Your task to perform on an android device: turn notification dots on Image 0: 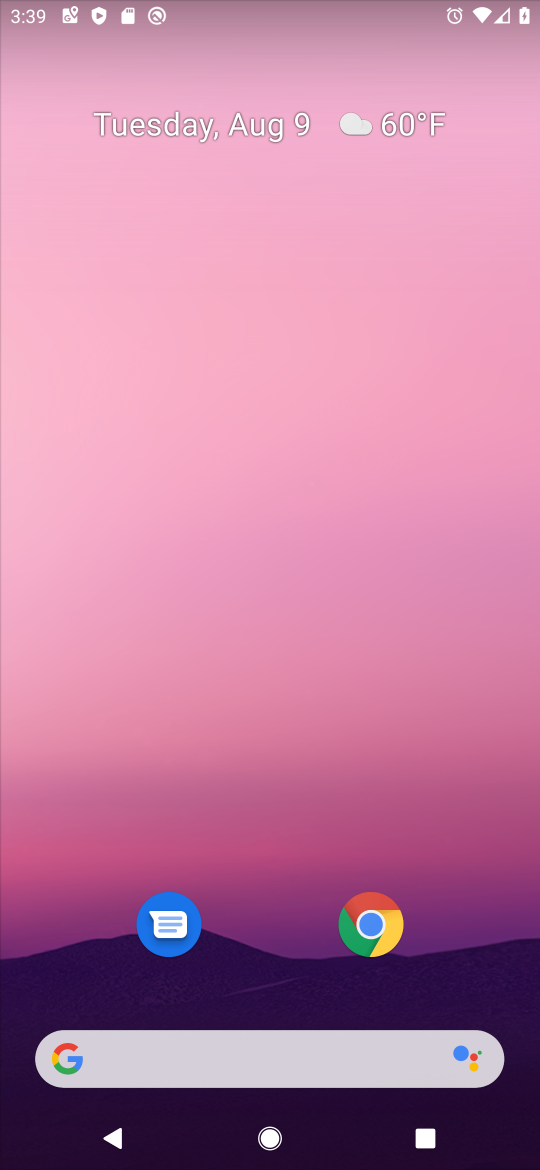
Step 0: drag from (272, 885) to (381, 0)
Your task to perform on an android device: turn notification dots on Image 1: 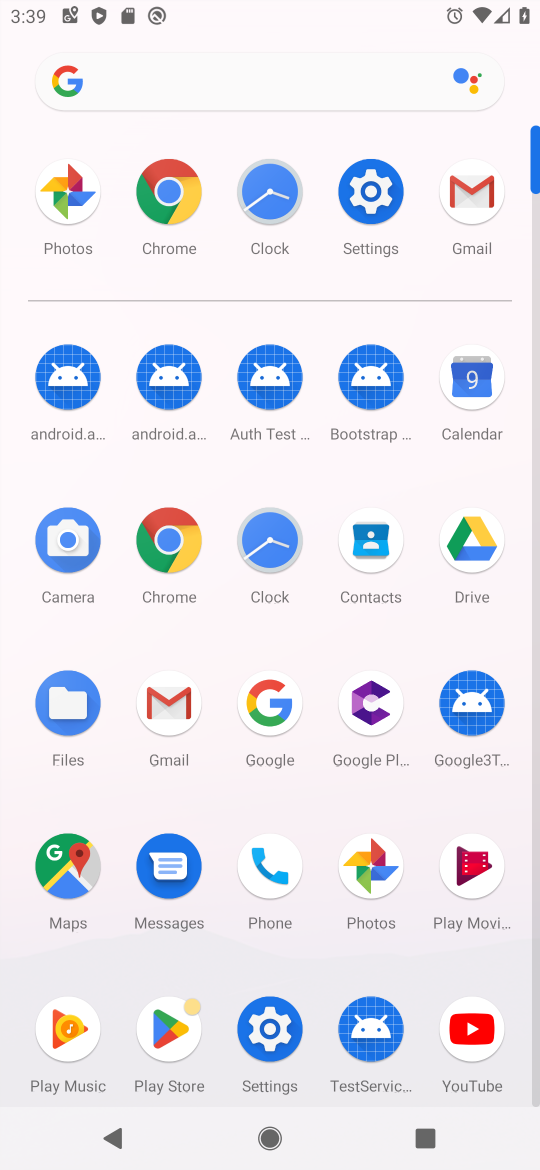
Step 1: click (378, 191)
Your task to perform on an android device: turn notification dots on Image 2: 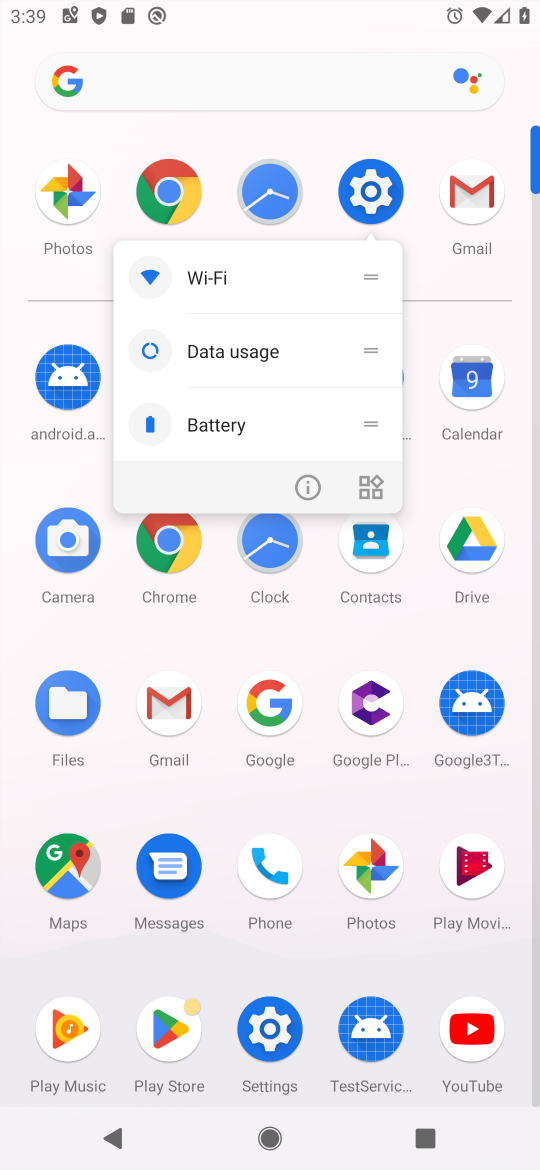
Step 2: click (371, 193)
Your task to perform on an android device: turn notification dots on Image 3: 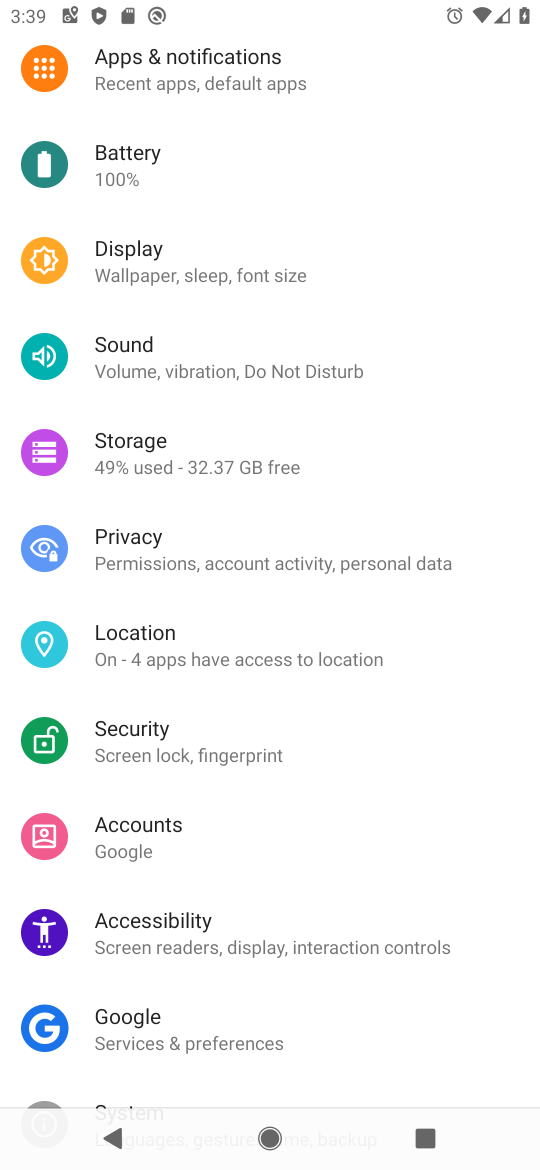
Step 3: click (252, 78)
Your task to perform on an android device: turn notification dots on Image 4: 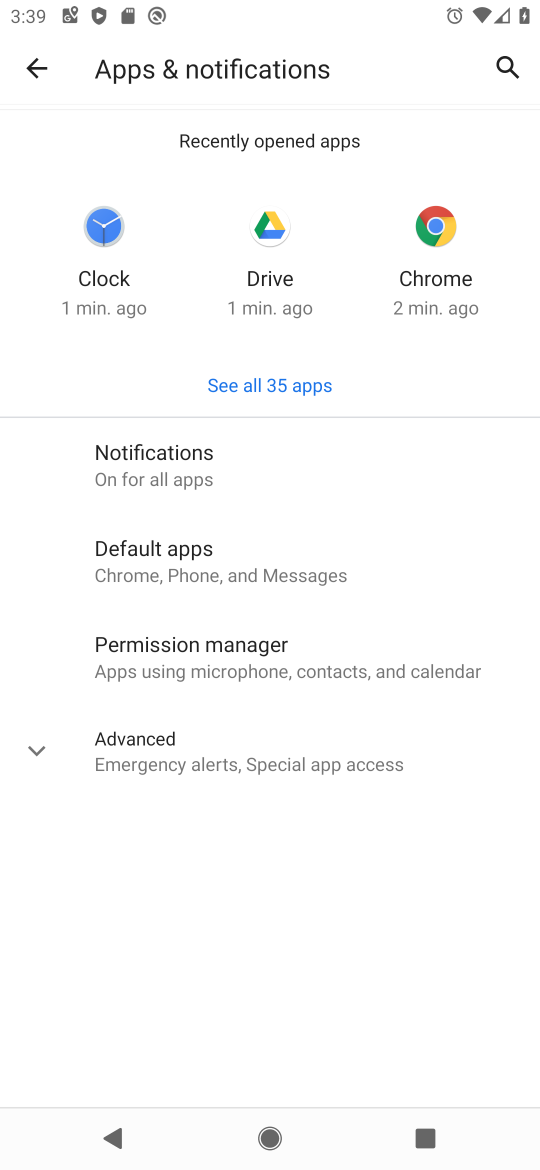
Step 4: click (32, 744)
Your task to perform on an android device: turn notification dots on Image 5: 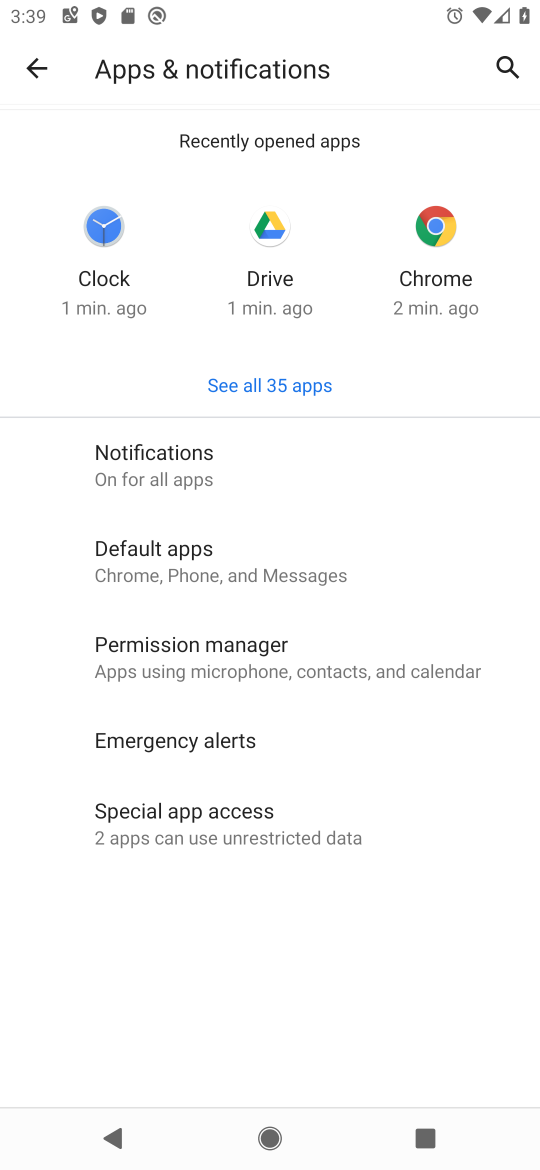
Step 5: click (190, 456)
Your task to perform on an android device: turn notification dots on Image 6: 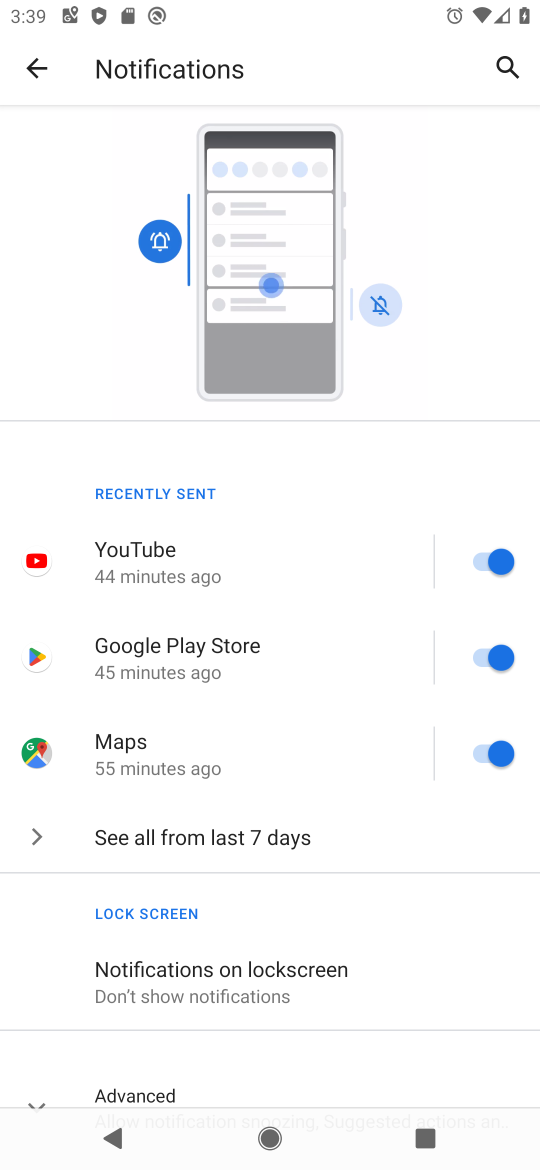
Step 6: drag from (320, 705) to (341, 330)
Your task to perform on an android device: turn notification dots on Image 7: 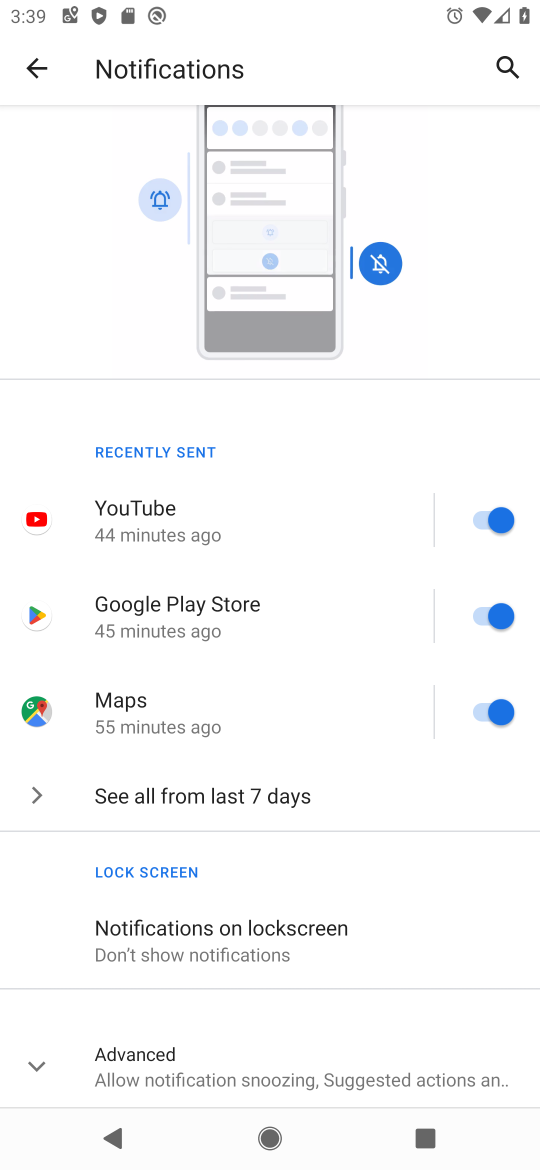
Step 7: click (33, 1058)
Your task to perform on an android device: turn notification dots on Image 8: 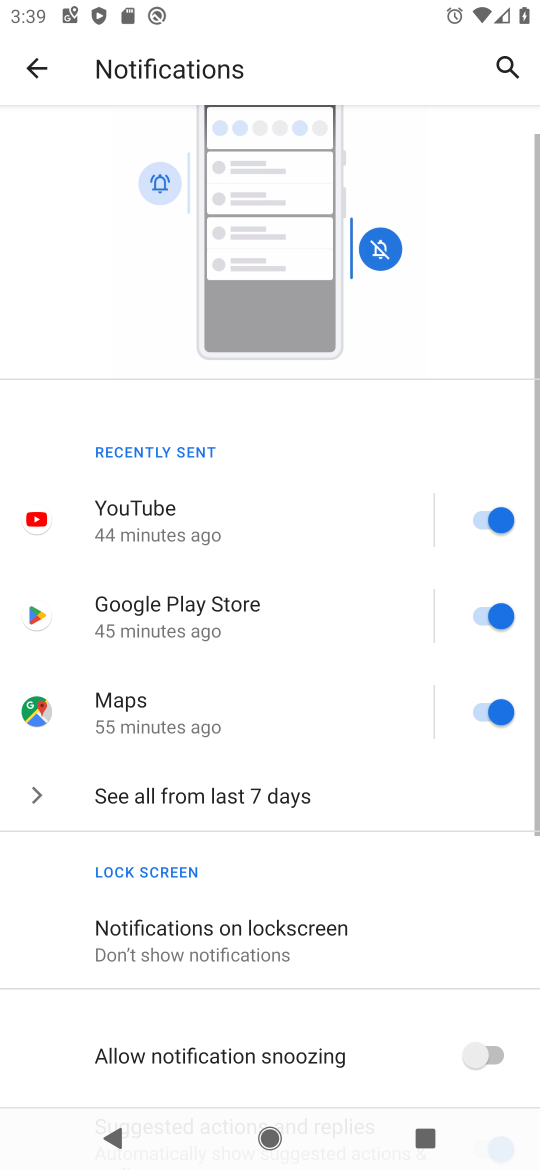
Step 8: task complete